Your task to perform on an android device: create a new album in the google photos Image 0: 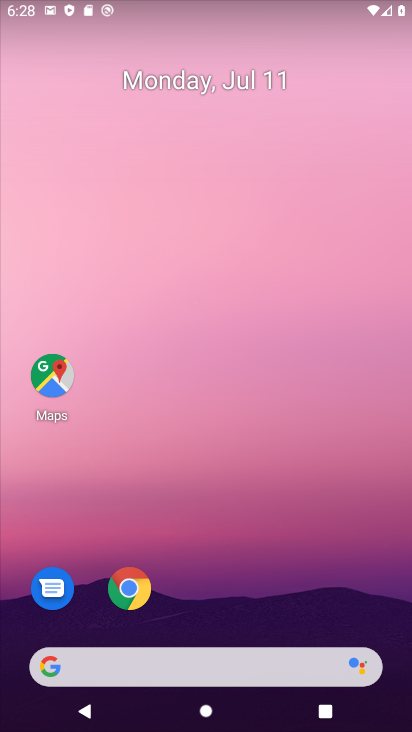
Step 0: drag from (364, 623) to (225, 68)
Your task to perform on an android device: create a new album in the google photos Image 1: 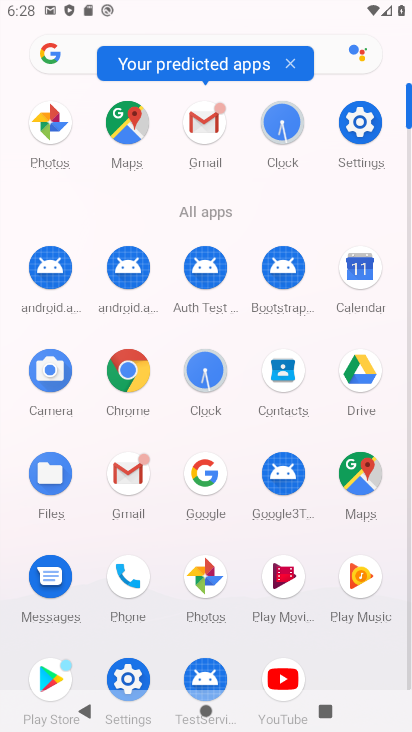
Step 1: click (205, 587)
Your task to perform on an android device: create a new album in the google photos Image 2: 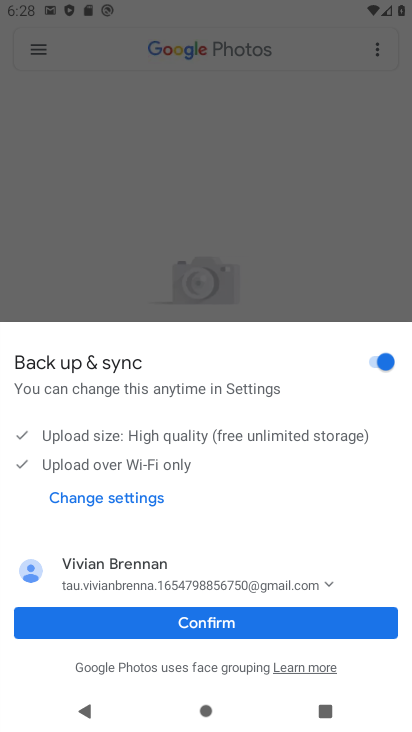
Step 2: click (209, 614)
Your task to perform on an android device: create a new album in the google photos Image 3: 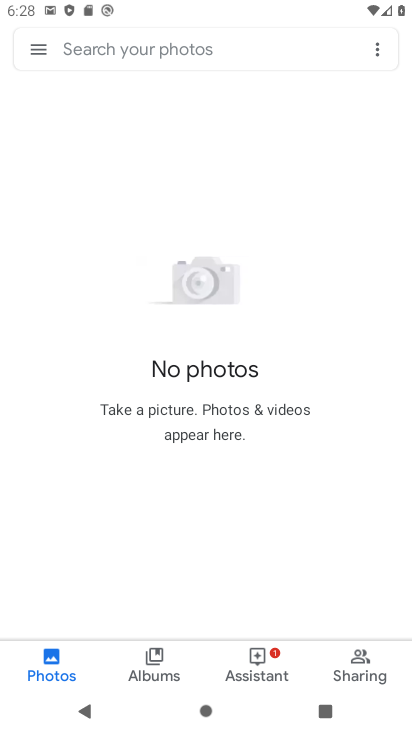
Step 3: task complete